Your task to perform on an android device: change the clock display to digital Image 0: 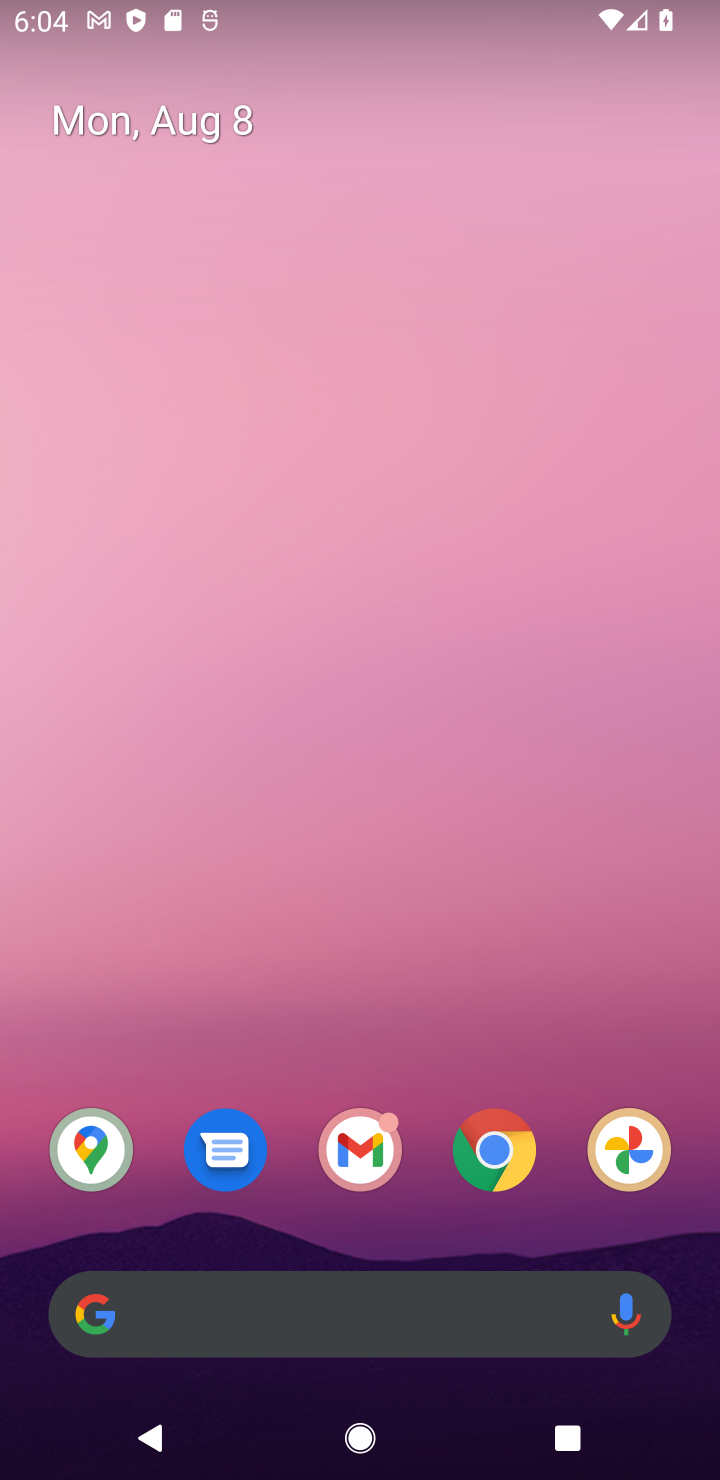
Step 0: drag from (424, 1231) to (257, 56)
Your task to perform on an android device: change the clock display to digital Image 1: 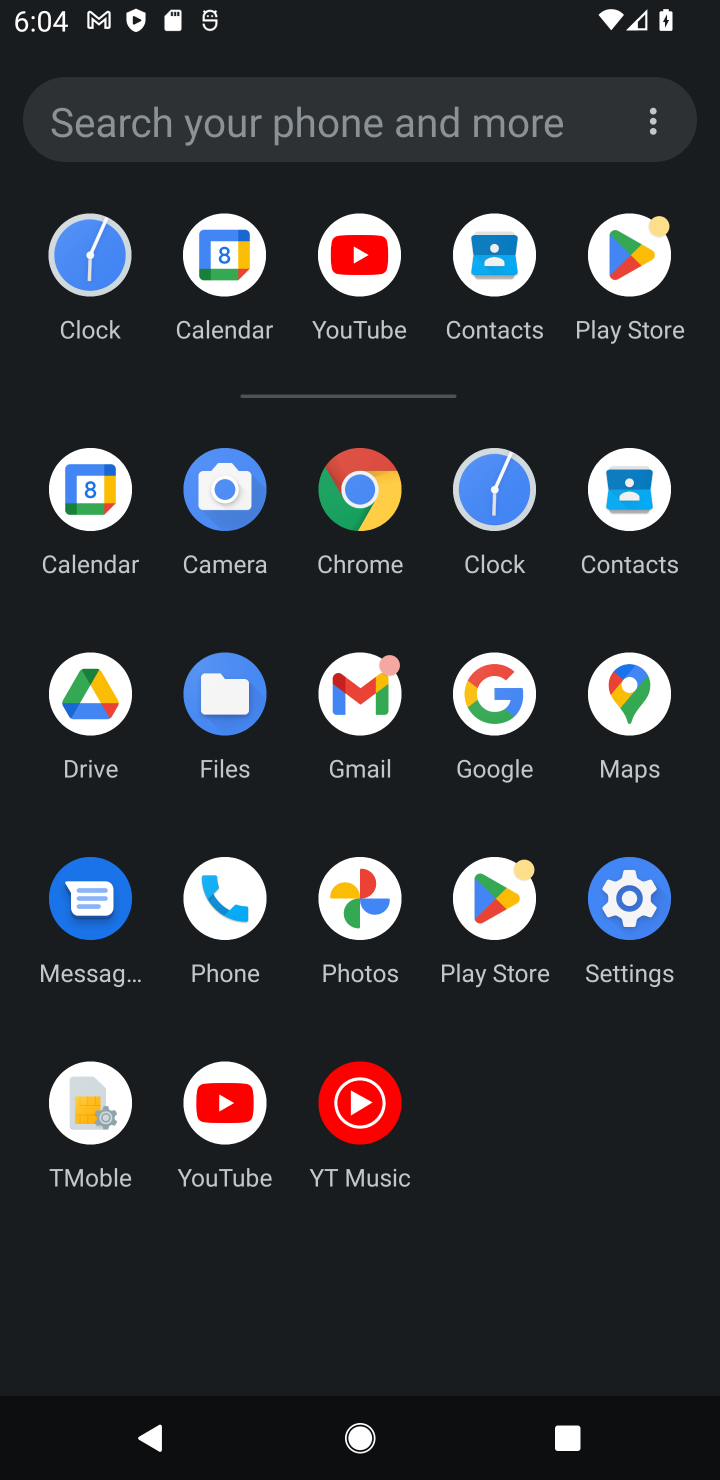
Step 1: click (619, 877)
Your task to perform on an android device: change the clock display to digital Image 2: 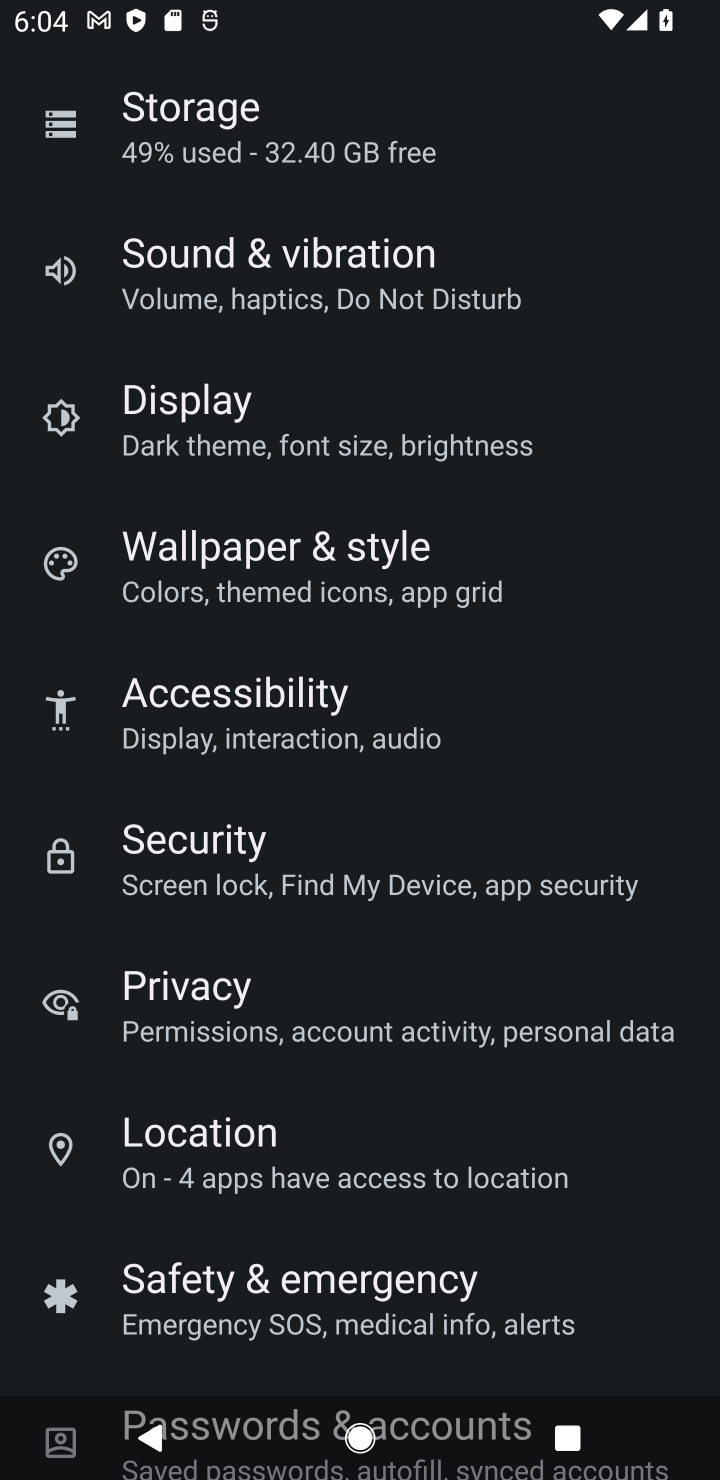
Step 2: type ""
Your task to perform on an android device: change the clock display to digital Image 3: 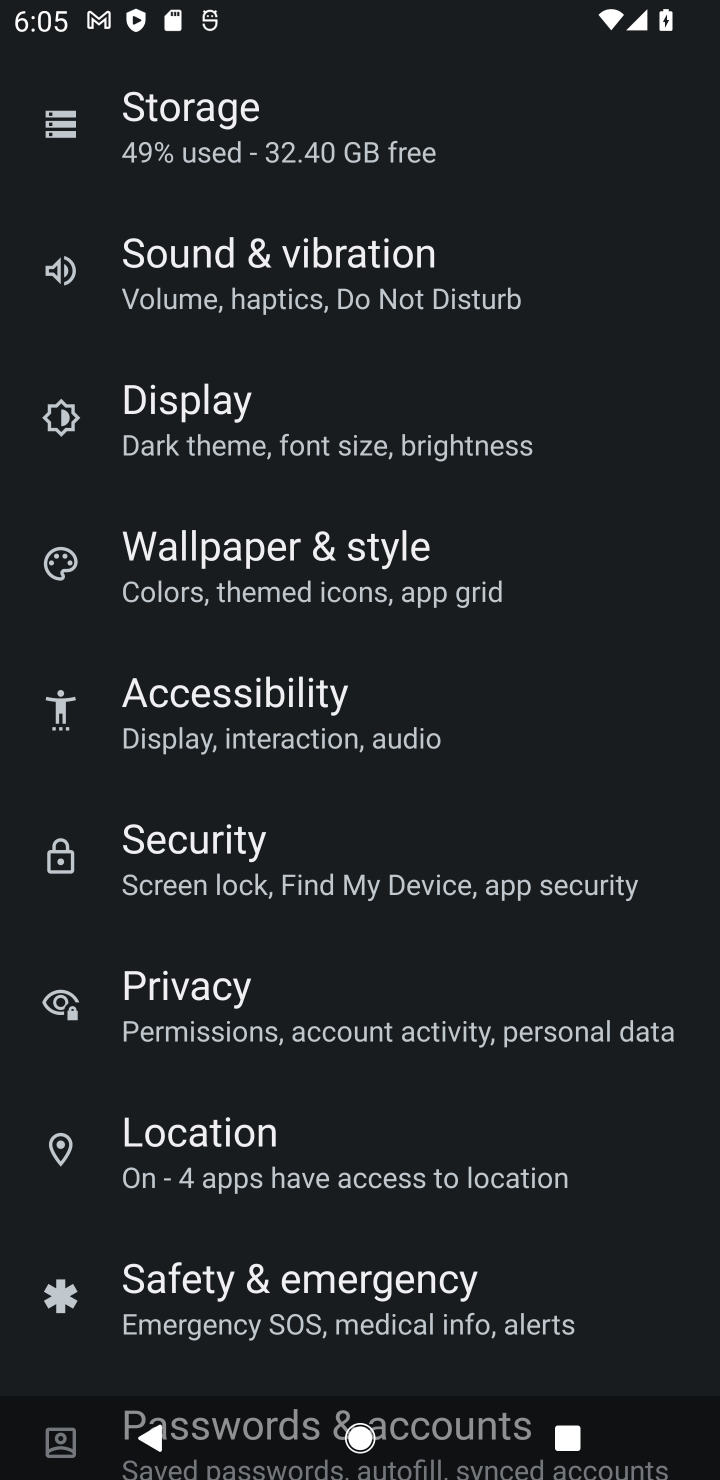
Step 3: press home button
Your task to perform on an android device: change the clock display to digital Image 4: 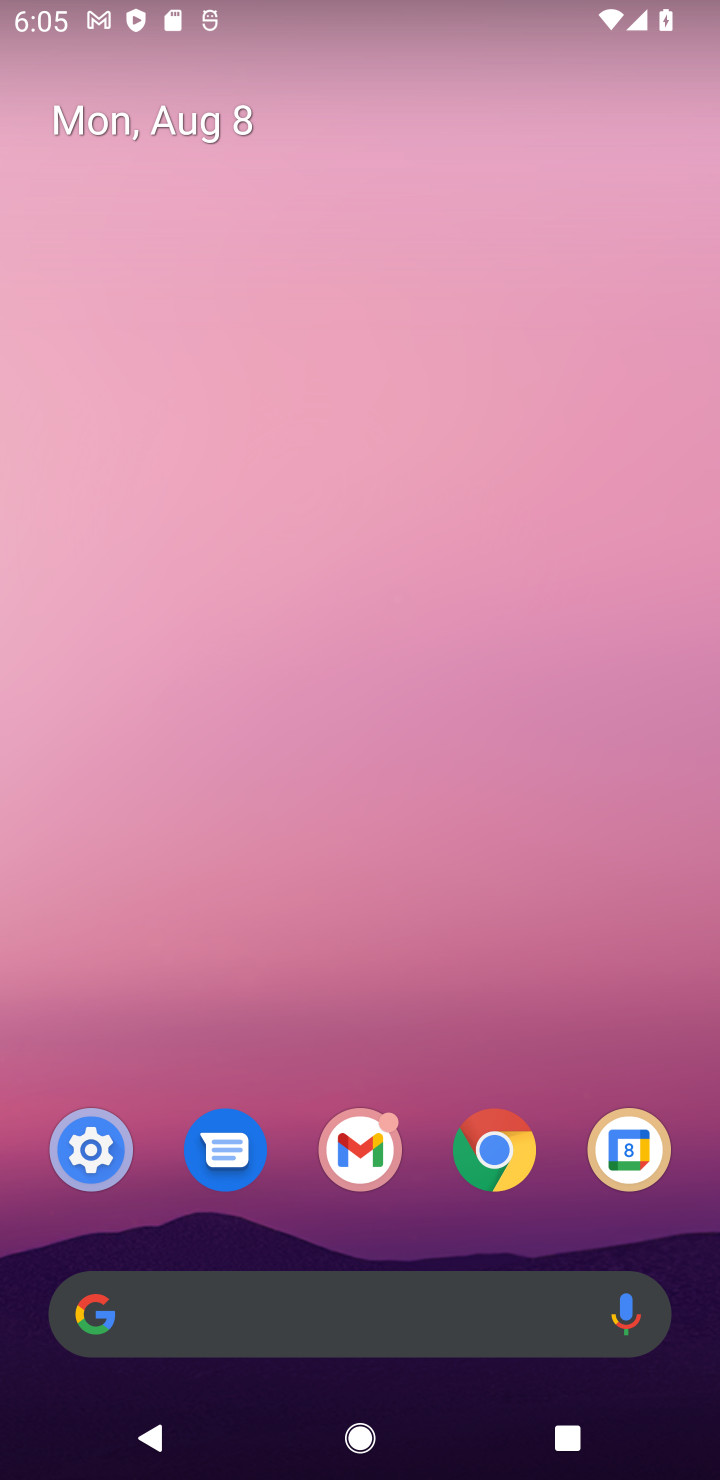
Step 4: drag from (390, 1231) to (398, 195)
Your task to perform on an android device: change the clock display to digital Image 5: 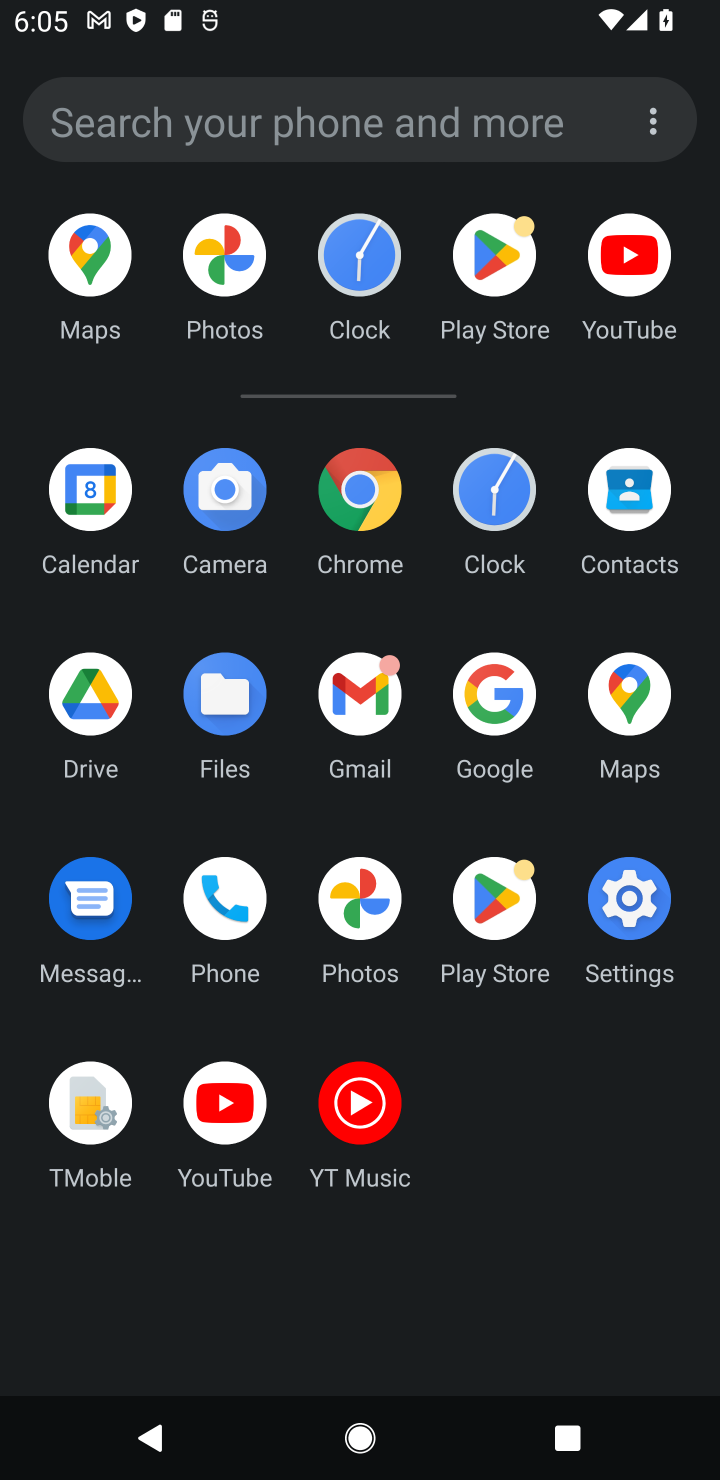
Step 5: drag from (312, 1252) to (351, 10)
Your task to perform on an android device: change the clock display to digital Image 6: 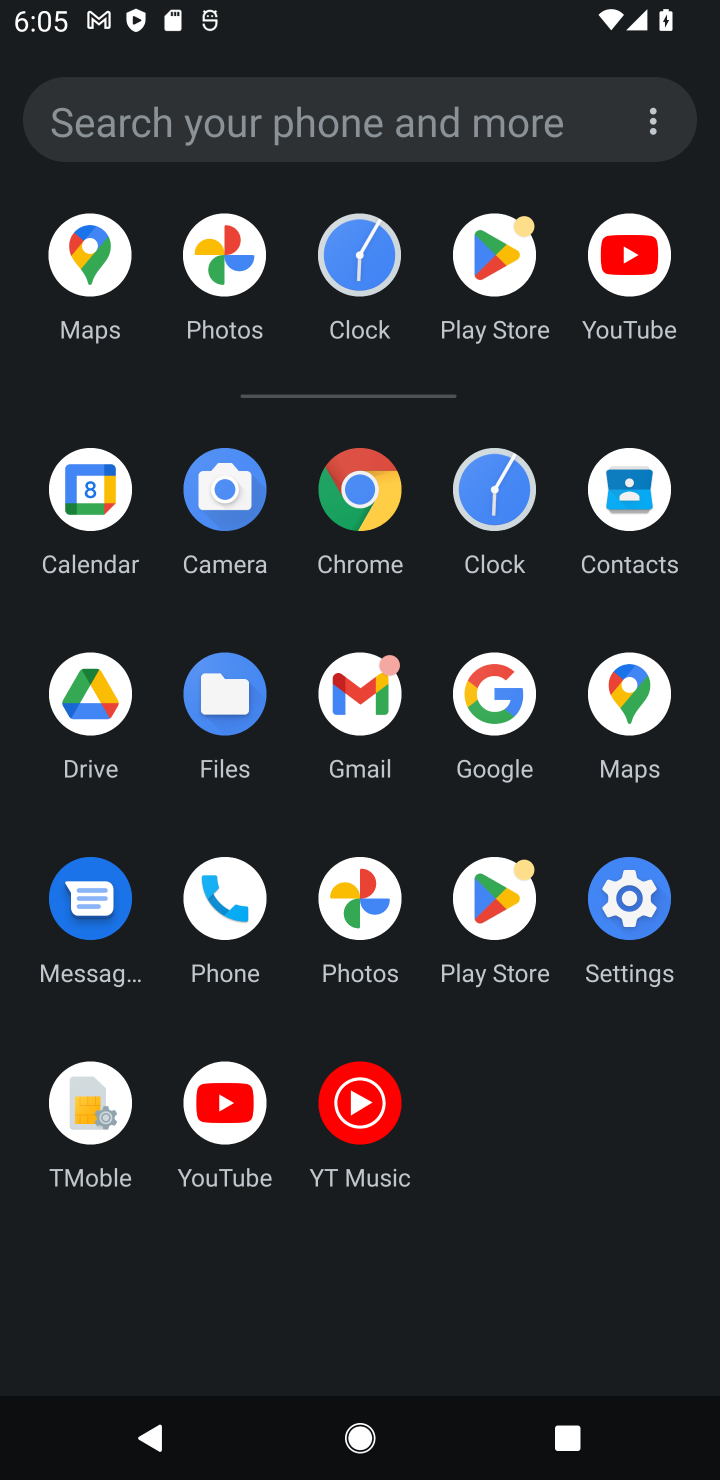
Step 6: click (398, 291)
Your task to perform on an android device: change the clock display to digital Image 7: 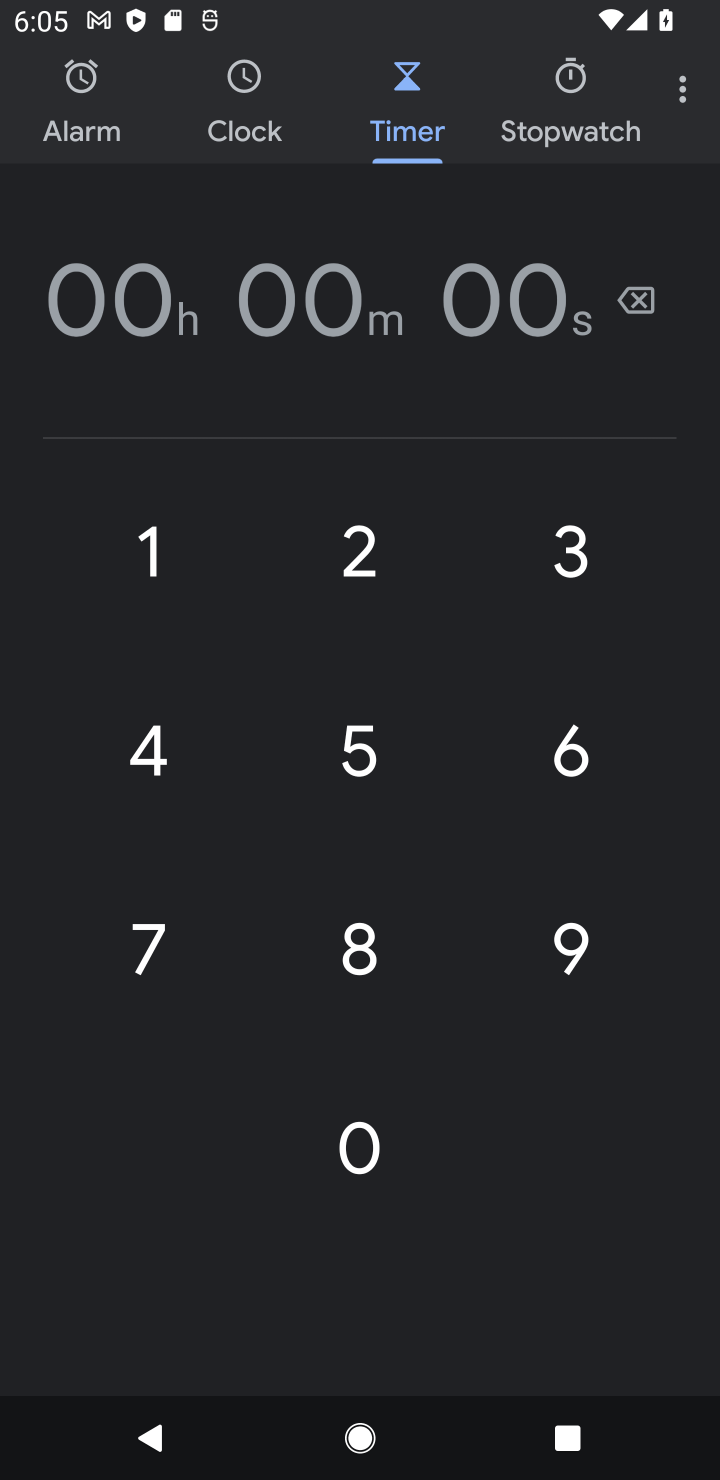
Step 7: click (684, 82)
Your task to perform on an android device: change the clock display to digital Image 8: 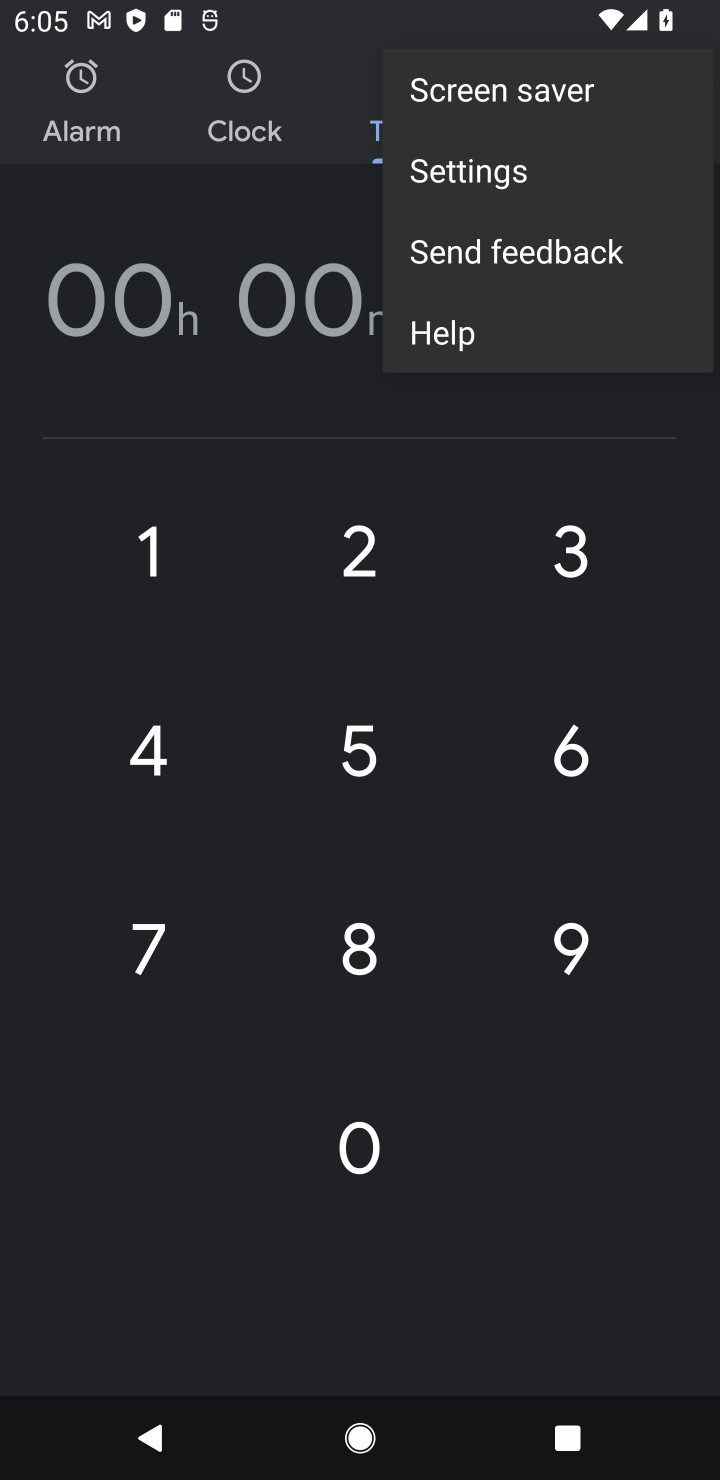
Step 8: click (480, 197)
Your task to perform on an android device: change the clock display to digital Image 9: 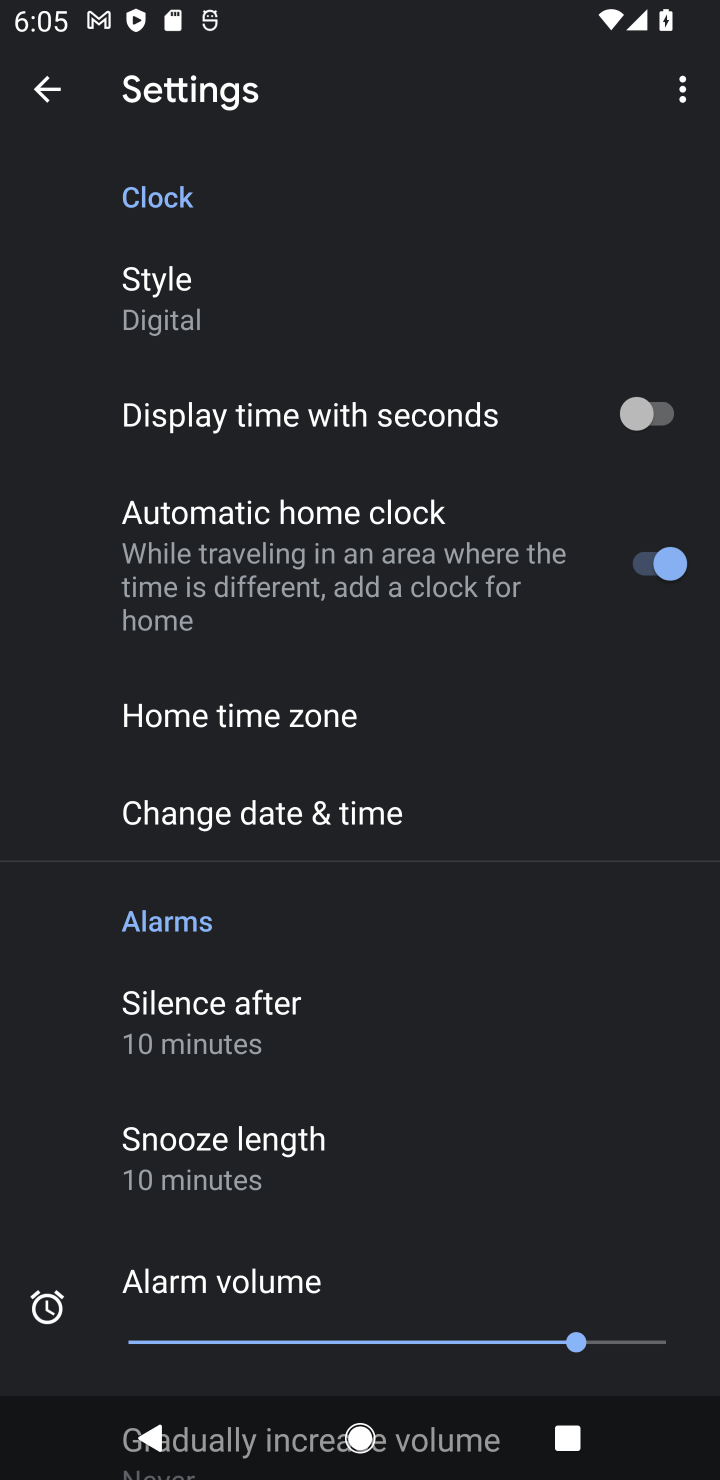
Step 9: click (403, 286)
Your task to perform on an android device: change the clock display to digital Image 10: 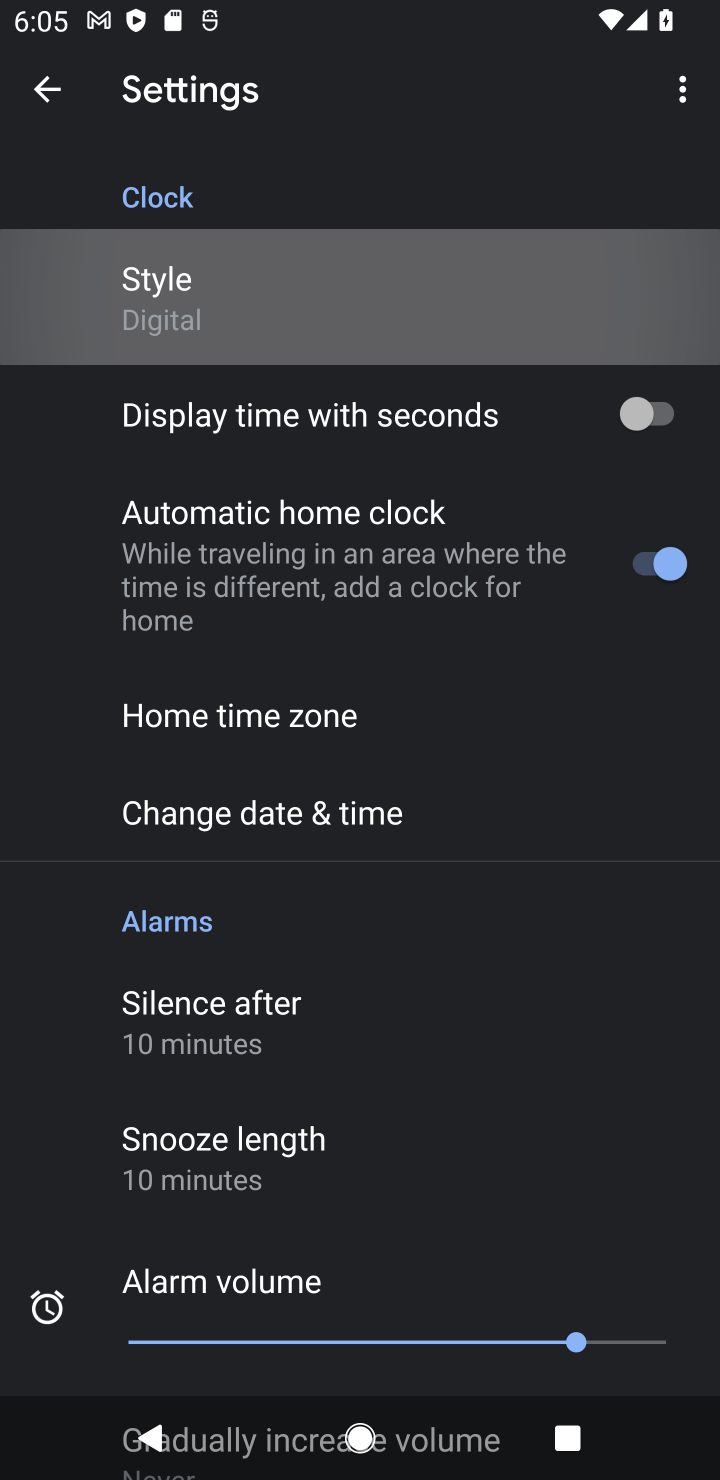
Step 10: task complete